Your task to perform on an android device: Open CNN.com Image 0: 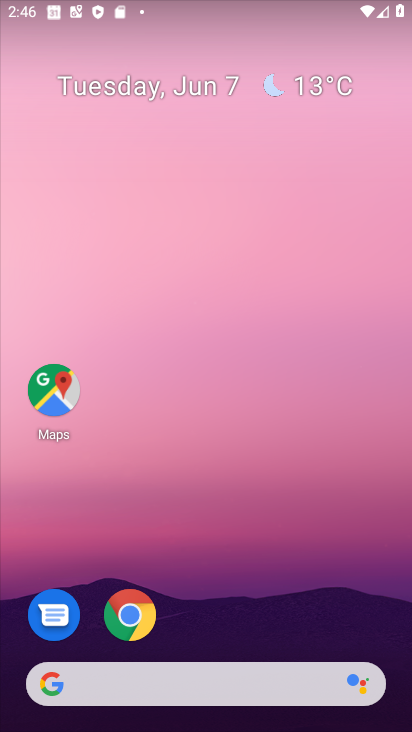
Step 0: click (186, 675)
Your task to perform on an android device: Open CNN.com Image 1: 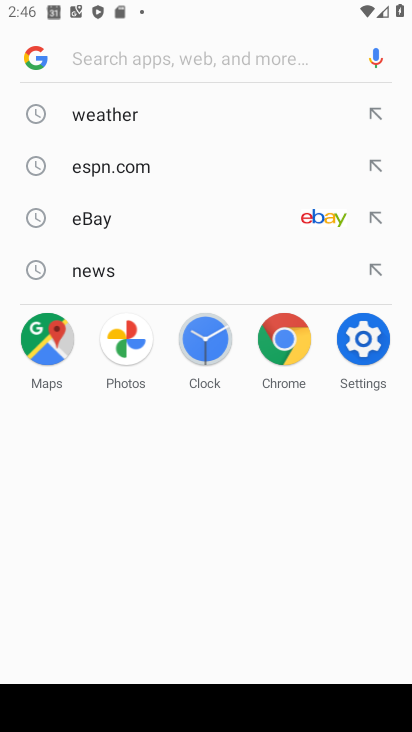
Step 1: type "CNN.com"
Your task to perform on an android device: Open CNN.com Image 2: 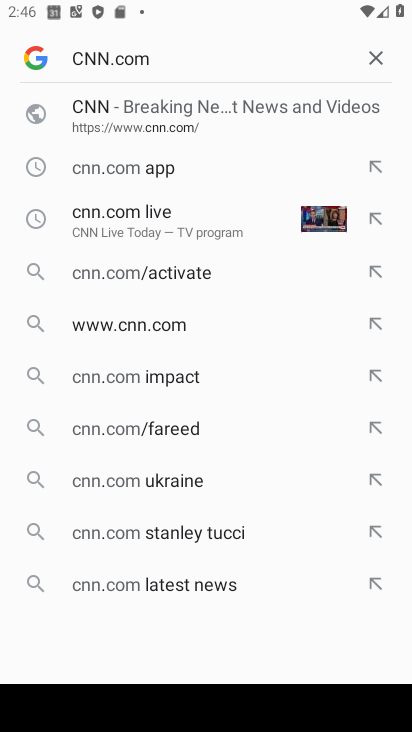
Step 2: click (197, 98)
Your task to perform on an android device: Open CNN.com Image 3: 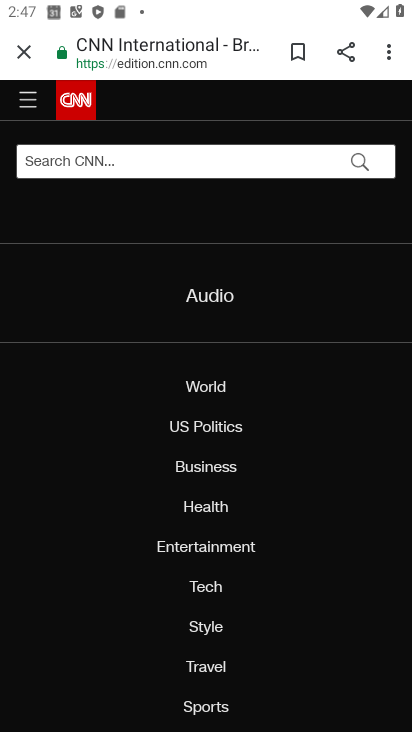
Step 3: task complete